Your task to perform on an android device: empty trash in the gmail app Image 0: 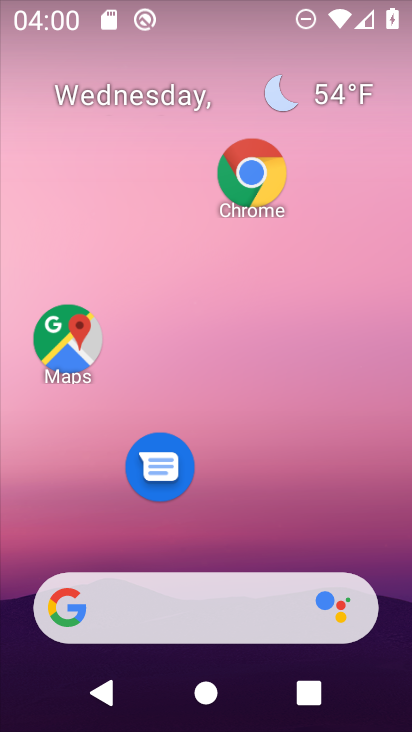
Step 0: drag from (223, 520) to (264, 30)
Your task to perform on an android device: empty trash in the gmail app Image 1: 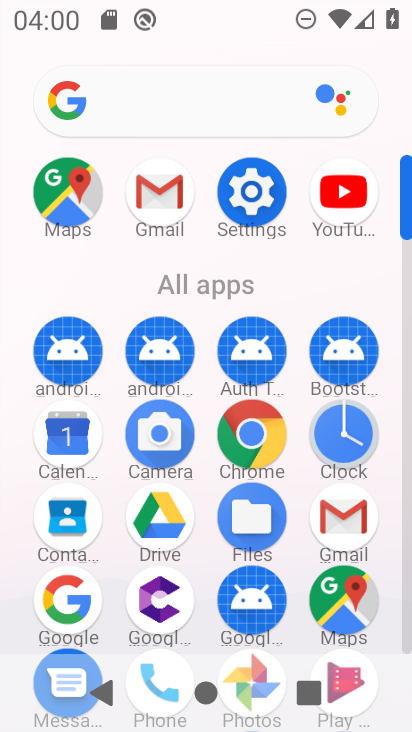
Step 1: click (156, 198)
Your task to perform on an android device: empty trash in the gmail app Image 2: 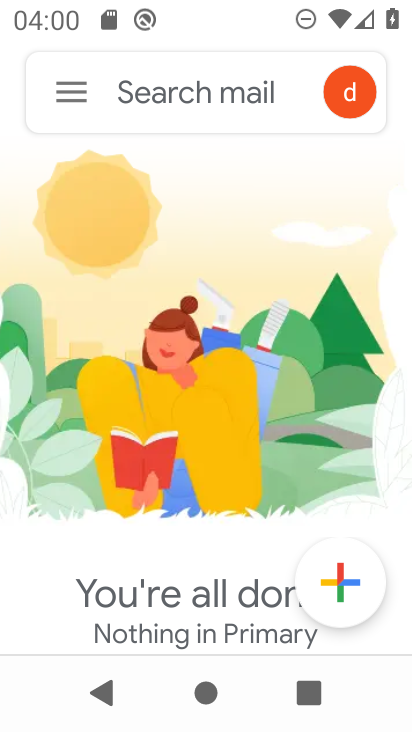
Step 2: click (81, 90)
Your task to perform on an android device: empty trash in the gmail app Image 3: 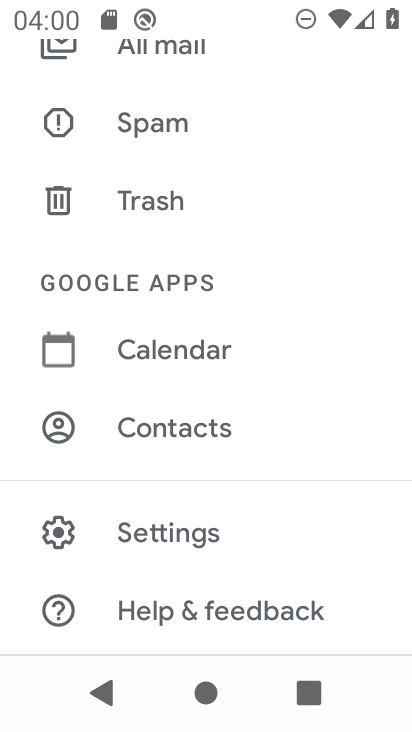
Step 3: click (157, 197)
Your task to perform on an android device: empty trash in the gmail app Image 4: 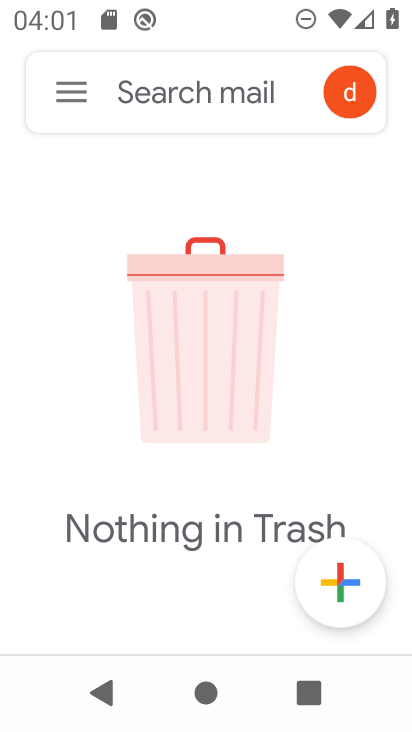
Step 4: task complete